Your task to perform on an android device: turn off notifications in google photos Image 0: 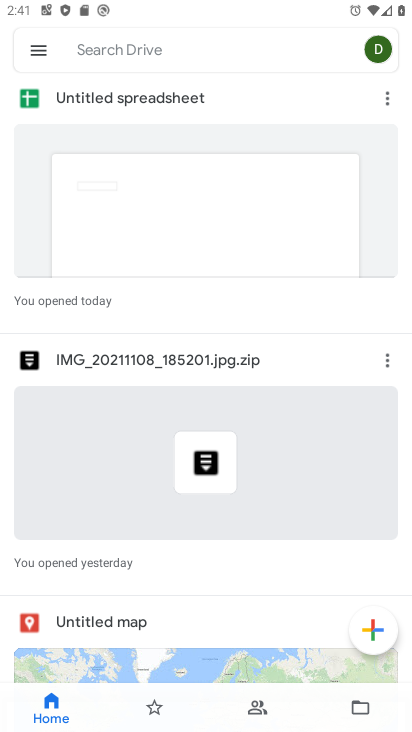
Step 0: press home button
Your task to perform on an android device: turn off notifications in google photos Image 1: 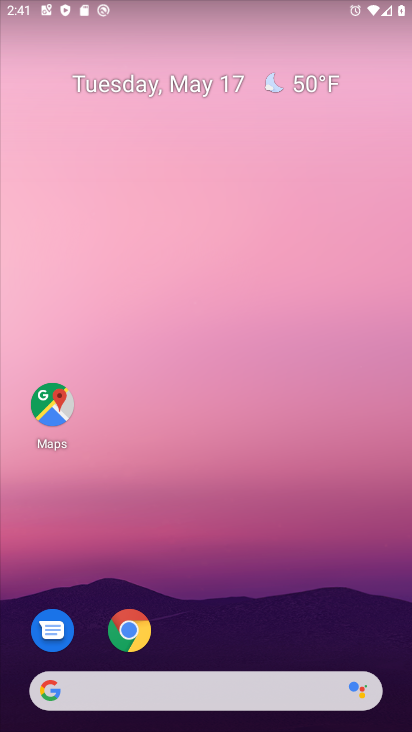
Step 1: drag from (159, 666) to (190, 292)
Your task to perform on an android device: turn off notifications in google photos Image 2: 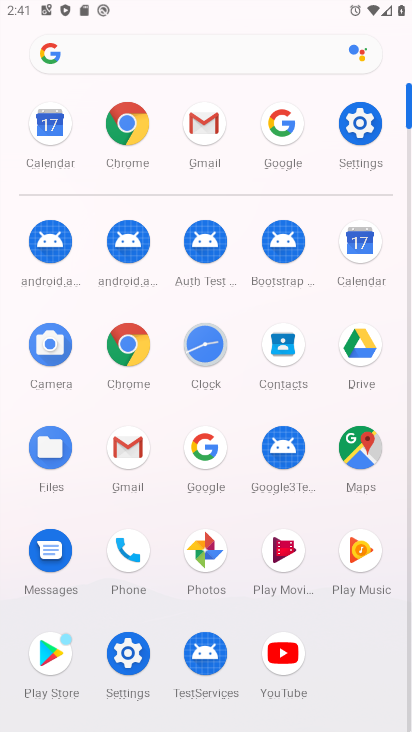
Step 2: click (216, 545)
Your task to perform on an android device: turn off notifications in google photos Image 3: 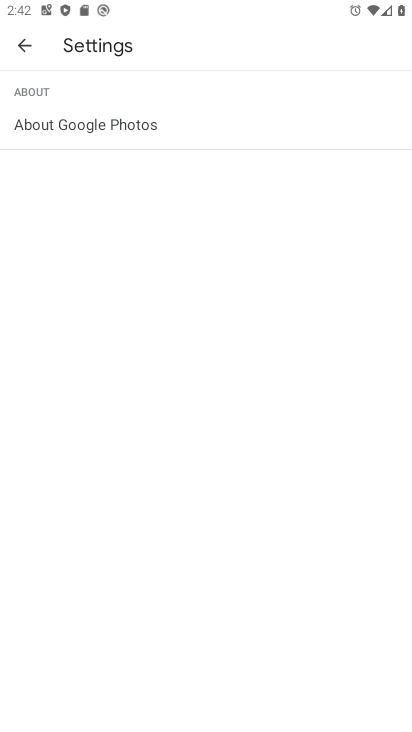
Step 3: click (22, 52)
Your task to perform on an android device: turn off notifications in google photos Image 4: 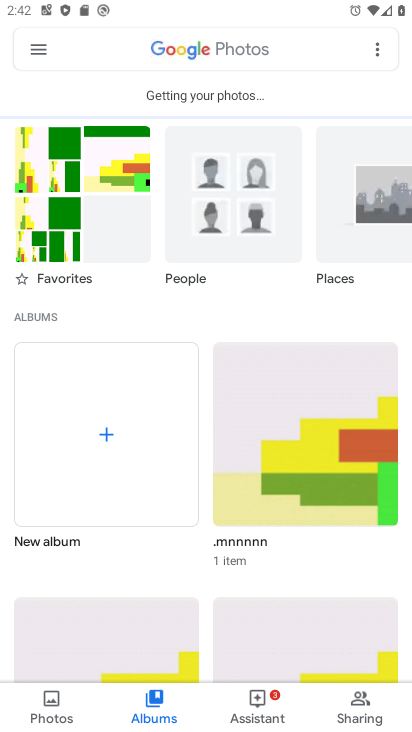
Step 4: click (31, 52)
Your task to perform on an android device: turn off notifications in google photos Image 5: 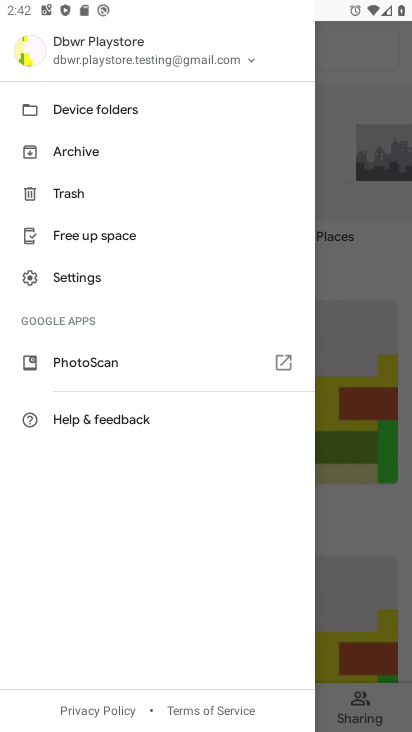
Step 5: click (83, 280)
Your task to perform on an android device: turn off notifications in google photos Image 6: 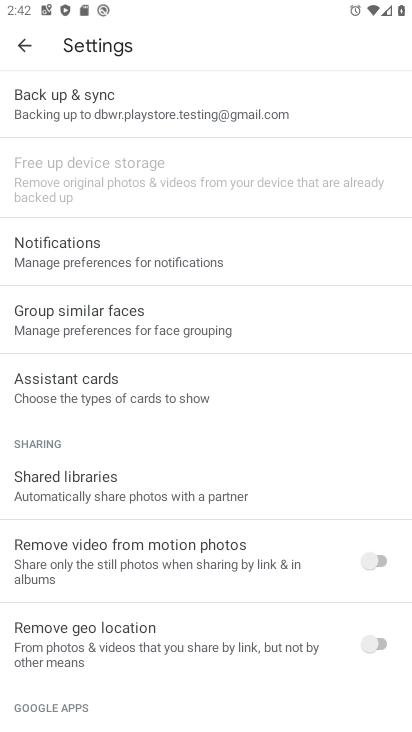
Step 6: click (109, 259)
Your task to perform on an android device: turn off notifications in google photos Image 7: 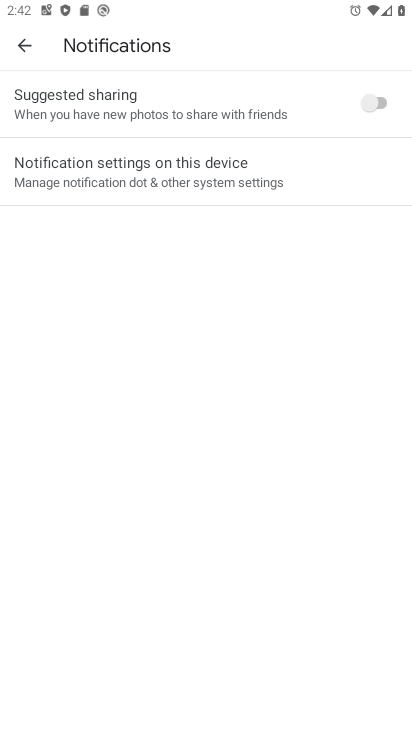
Step 7: click (112, 171)
Your task to perform on an android device: turn off notifications in google photos Image 8: 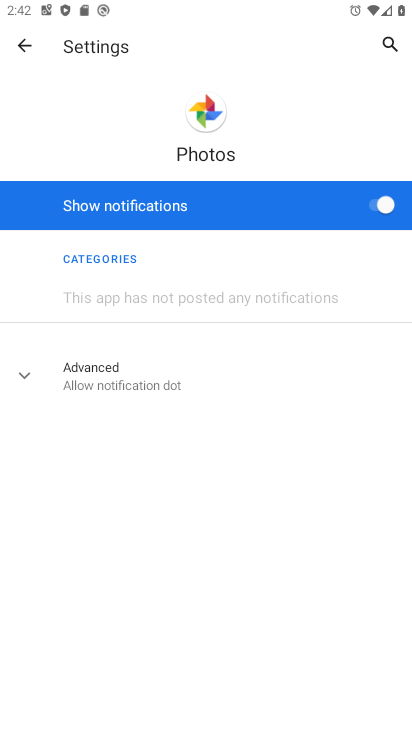
Step 8: click (373, 201)
Your task to perform on an android device: turn off notifications in google photos Image 9: 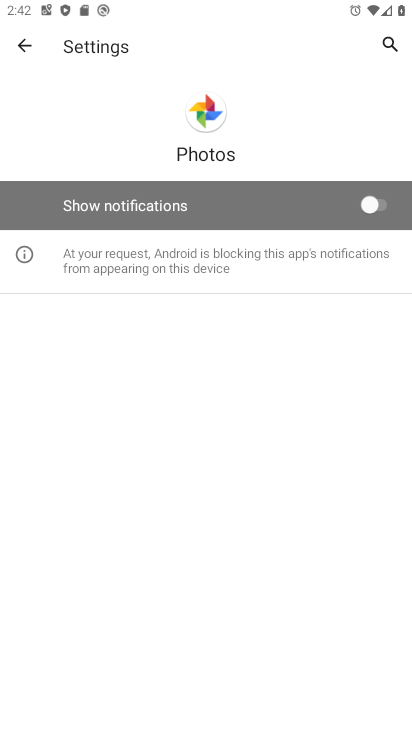
Step 9: task complete